Your task to perform on an android device: toggle priority inbox in the gmail app Image 0: 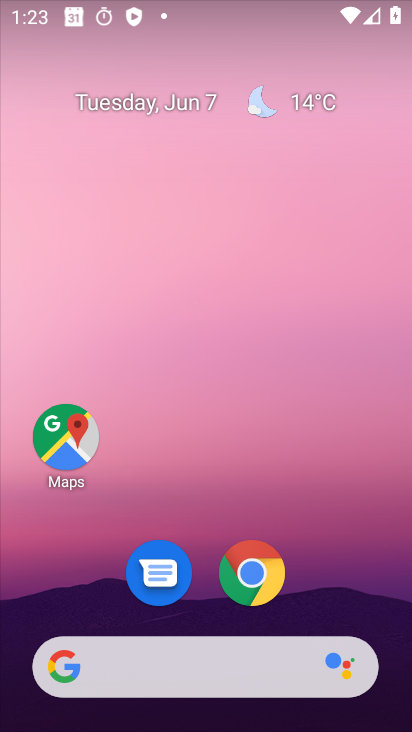
Step 0: drag from (201, 4) to (232, 527)
Your task to perform on an android device: toggle priority inbox in the gmail app Image 1: 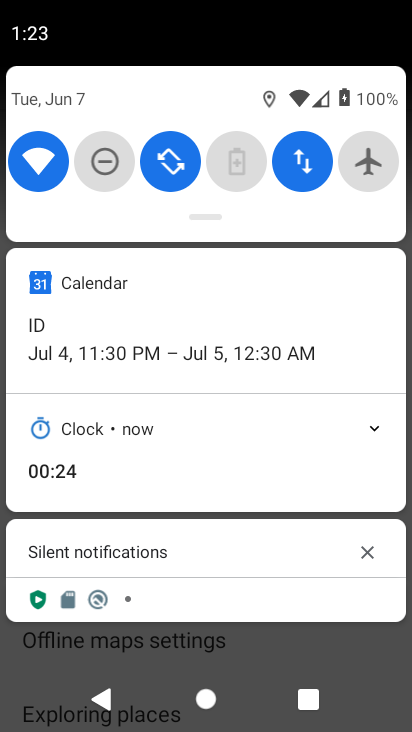
Step 1: press home button
Your task to perform on an android device: toggle priority inbox in the gmail app Image 2: 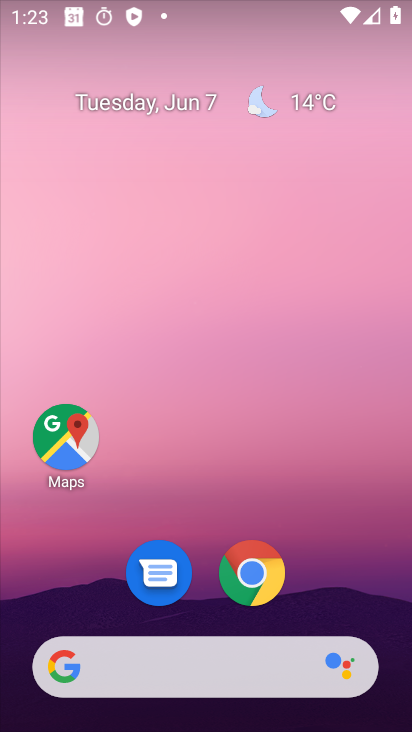
Step 2: drag from (208, 609) to (208, 78)
Your task to perform on an android device: toggle priority inbox in the gmail app Image 3: 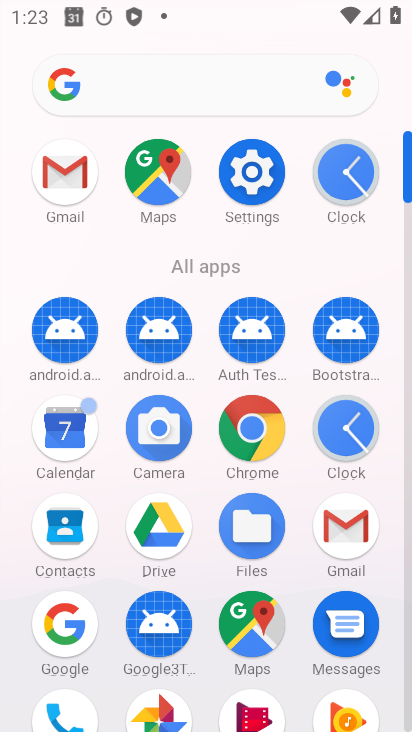
Step 3: click (62, 159)
Your task to perform on an android device: toggle priority inbox in the gmail app Image 4: 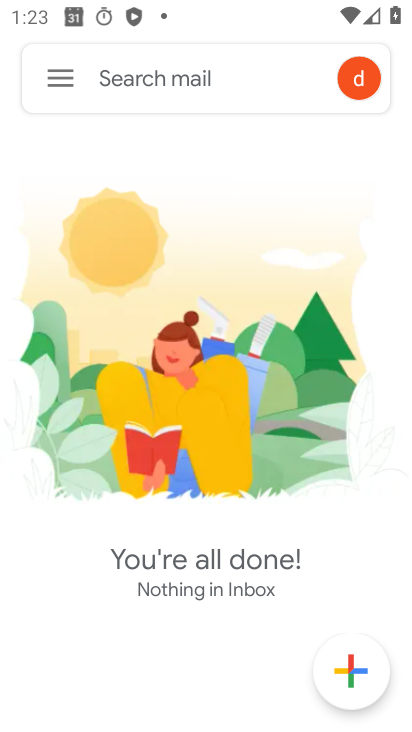
Step 4: click (58, 74)
Your task to perform on an android device: toggle priority inbox in the gmail app Image 5: 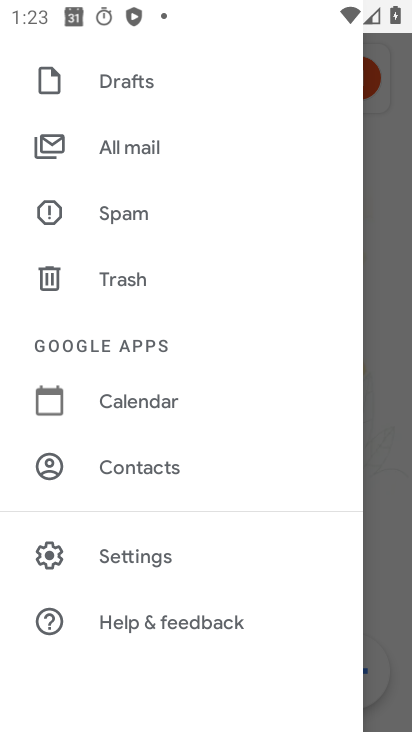
Step 5: click (187, 554)
Your task to perform on an android device: toggle priority inbox in the gmail app Image 6: 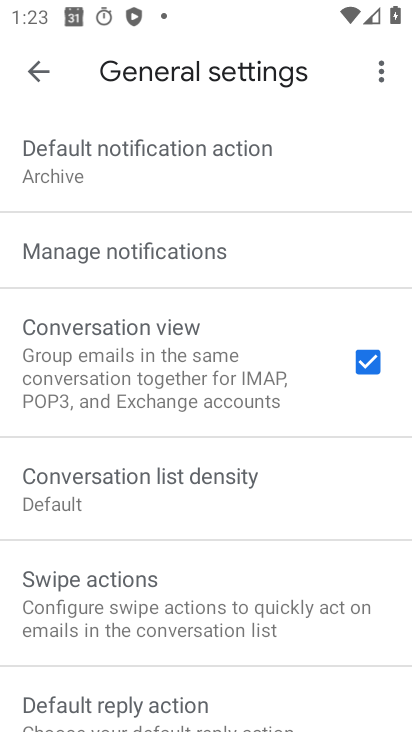
Step 6: click (43, 75)
Your task to perform on an android device: toggle priority inbox in the gmail app Image 7: 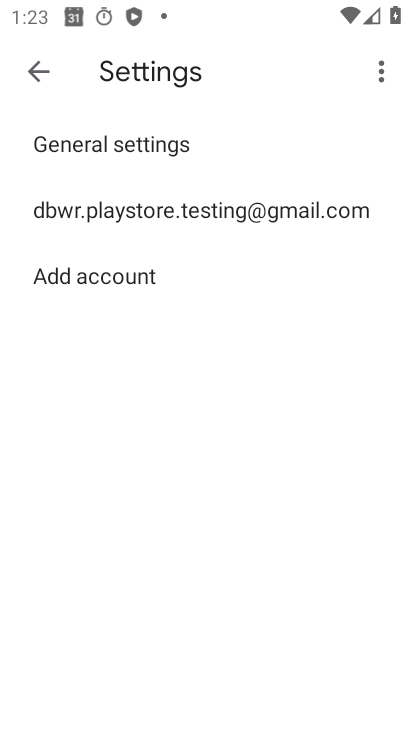
Step 7: click (176, 204)
Your task to perform on an android device: toggle priority inbox in the gmail app Image 8: 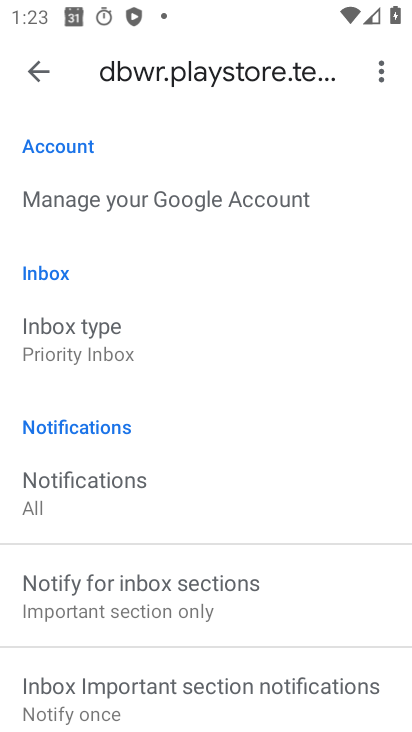
Step 8: click (144, 334)
Your task to perform on an android device: toggle priority inbox in the gmail app Image 9: 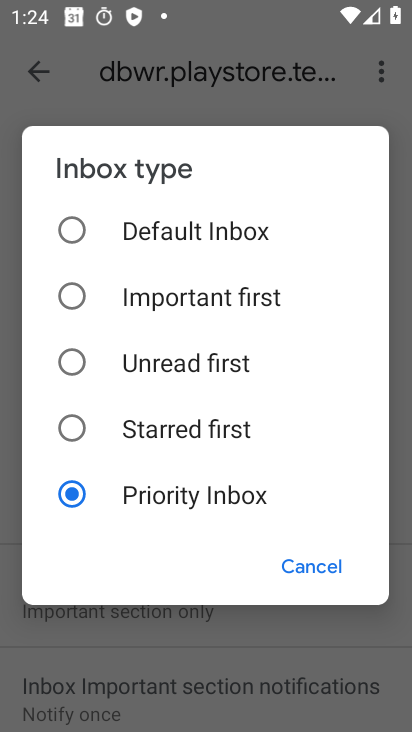
Step 9: click (65, 234)
Your task to perform on an android device: toggle priority inbox in the gmail app Image 10: 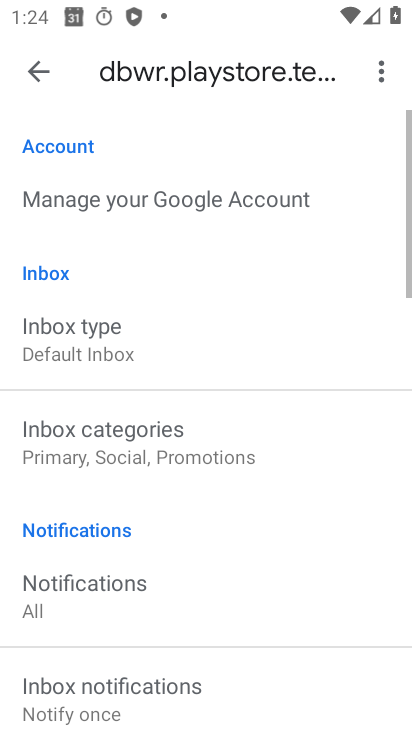
Step 10: task complete